Your task to perform on an android device: toggle pop-ups in chrome Image 0: 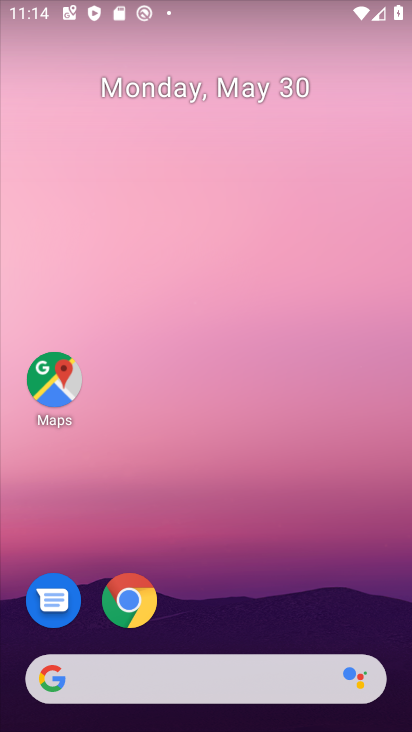
Step 0: click (124, 599)
Your task to perform on an android device: toggle pop-ups in chrome Image 1: 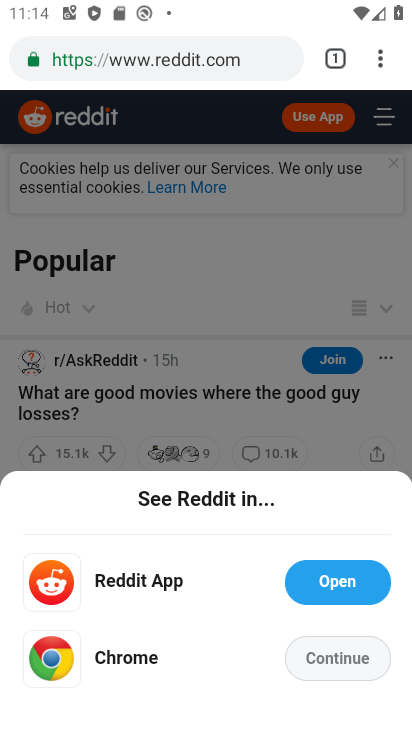
Step 1: click (380, 65)
Your task to perform on an android device: toggle pop-ups in chrome Image 2: 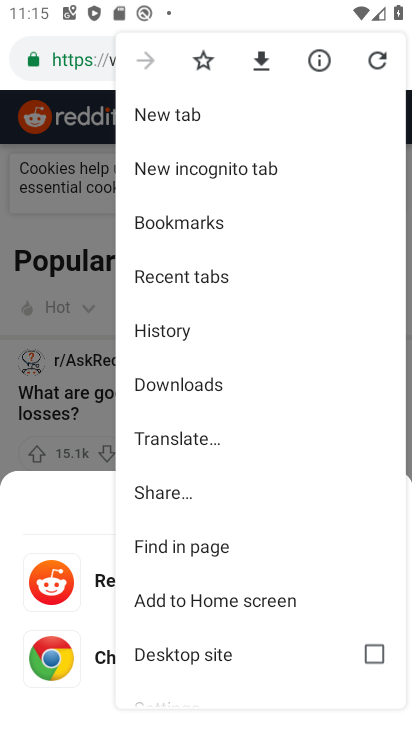
Step 2: drag from (174, 662) to (173, 246)
Your task to perform on an android device: toggle pop-ups in chrome Image 3: 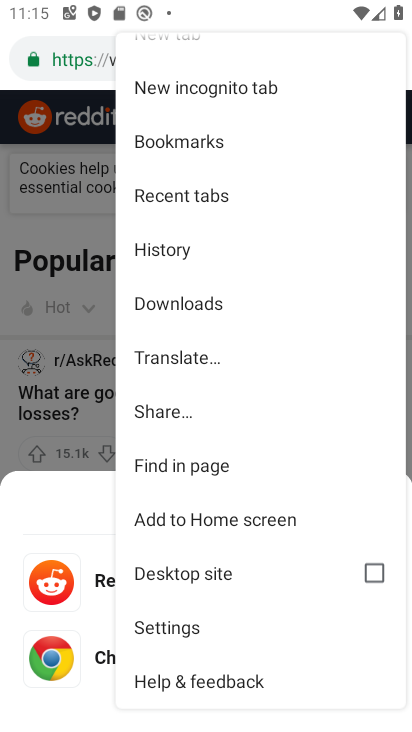
Step 3: click (172, 629)
Your task to perform on an android device: toggle pop-ups in chrome Image 4: 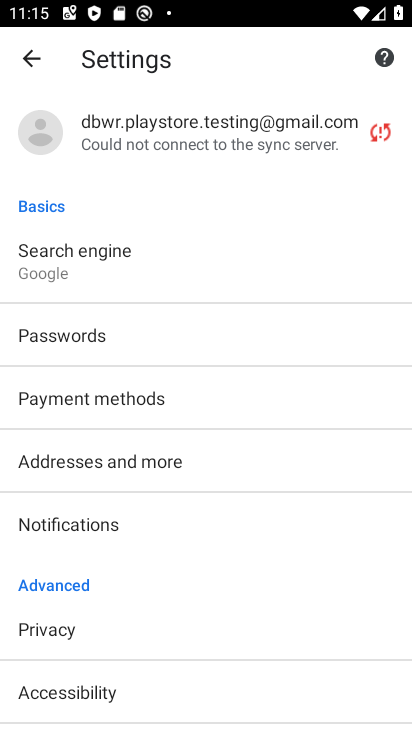
Step 4: drag from (120, 680) to (116, 244)
Your task to perform on an android device: toggle pop-ups in chrome Image 5: 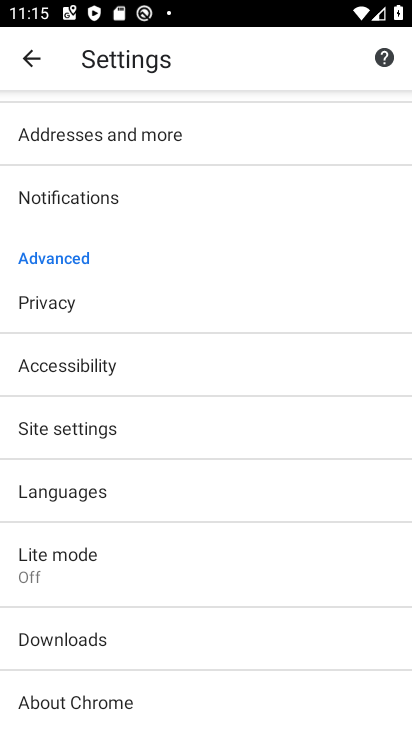
Step 5: click (87, 430)
Your task to perform on an android device: toggle pop-ups in chrome Image 6: 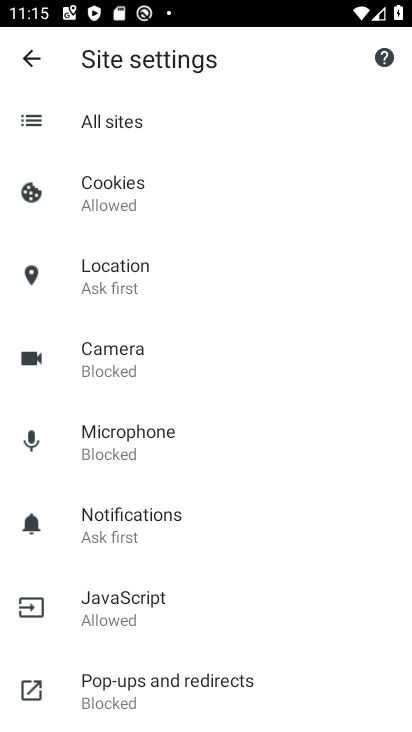
Step 6: click (134, 683)
Your task to perform on an android device: toggle pop-ups in chrome Image 7: 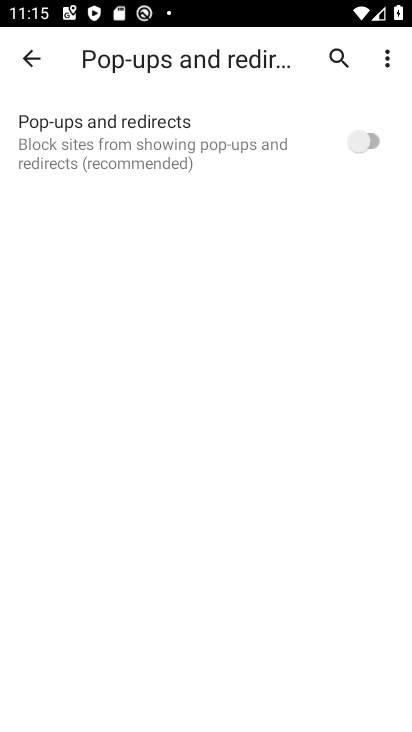
Step 7: click (368, 139)
Your task to perform on an android device: toggle pop-ups in chrome Image 8: 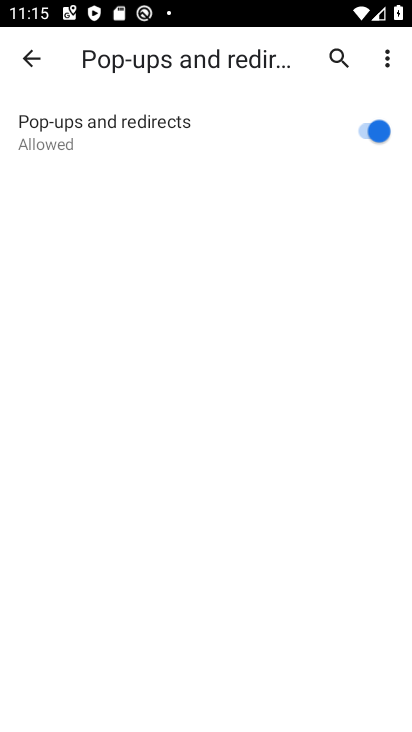
Step 8: task complete